Your task to perform on an android device: move a message to another label in the gmail app Image 0: 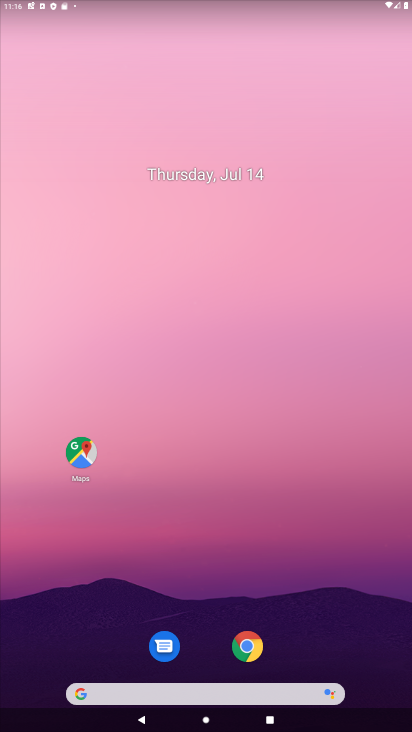
Step 0: drag from (200, 652) to (195, 306)
Your task to perform on an android device: move a message to another label in the gmail app Image 1: 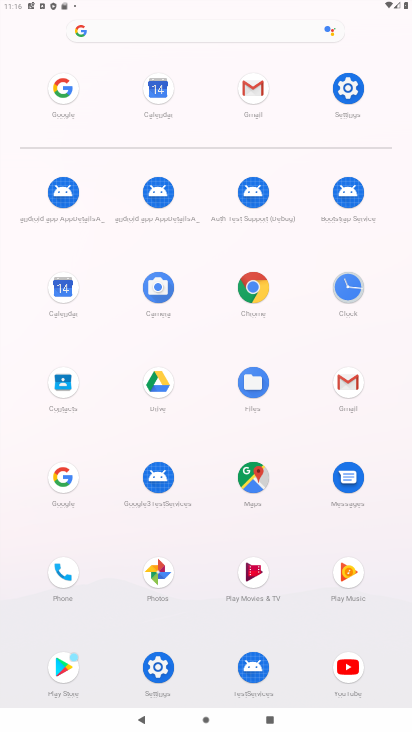
Step 1: click (252, 95)
Your task to perform on an android device: move a message to another label in the gmail app Image 2: 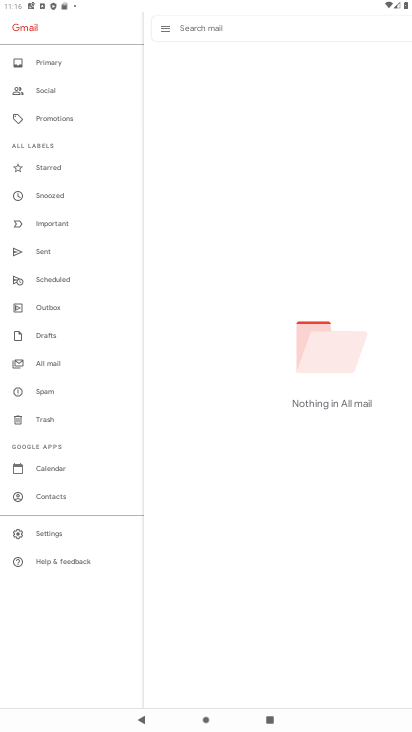
Step 2: click (71, 538)
Your task to perform on an android device: move a message to another label in the gmail app Image 3: 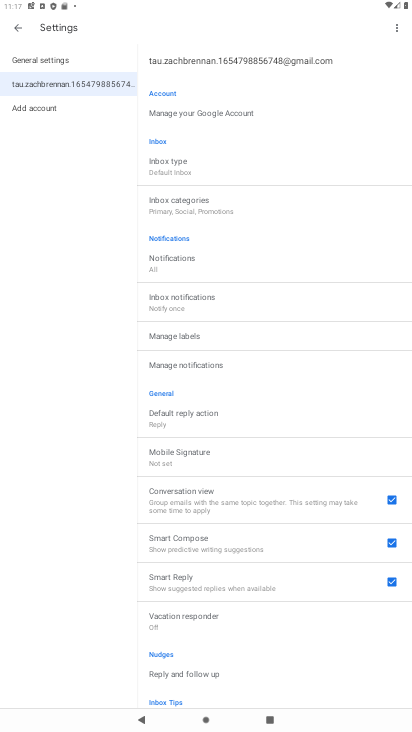
Step 3: click (7, 29)
Your task to perform on an android device: move a message to another label in the gmail app Image 4: 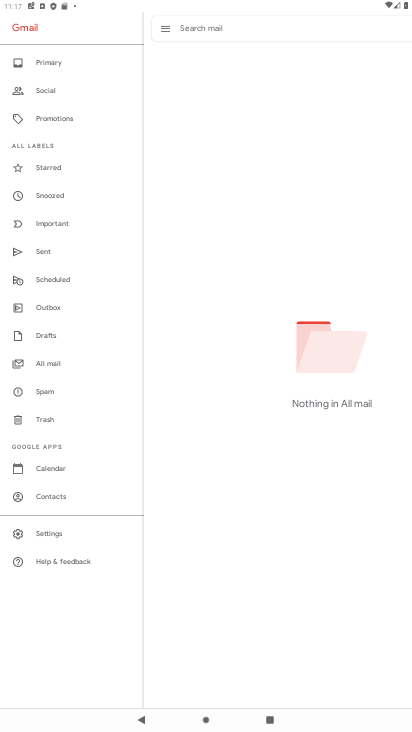
Step 4: task complete